Your task to perform on an android device: uninstall "Google Play Games" Image 0: 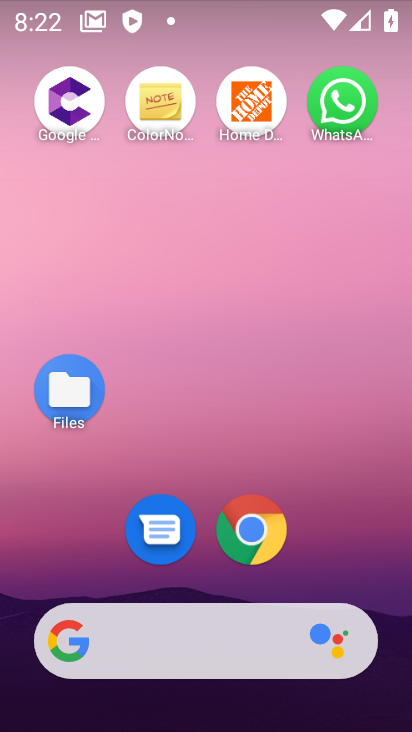
Step 0: drag from (303, 571) to (291, 0)
Your task to perform on an android device: uninstall "Google Play Games" Image 1: 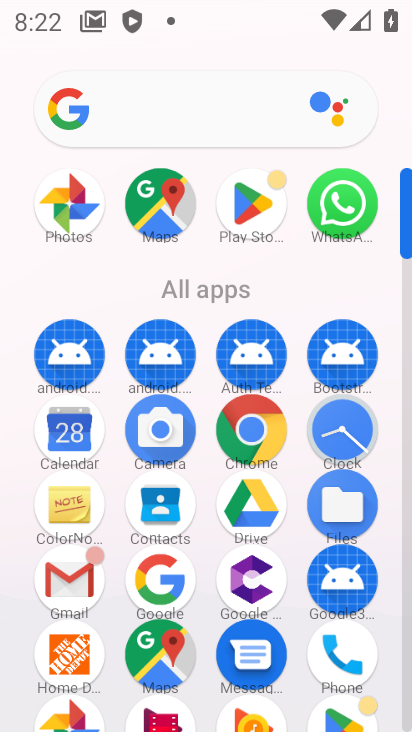
Step 1: click (250, 204)
Your task to perform on an android device: uninstall "Google Play Games" Image 2: 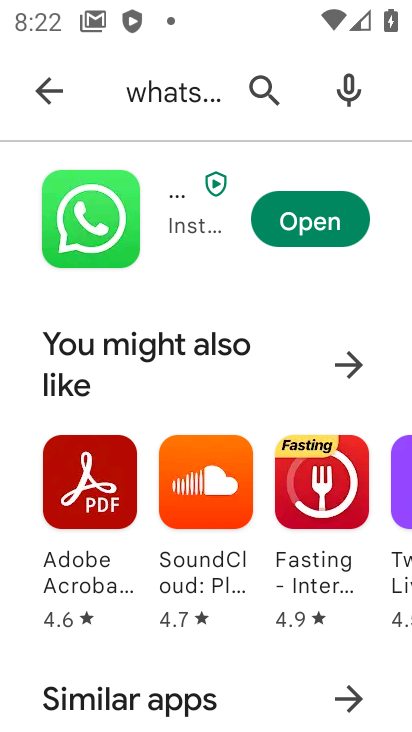
Step 2: click (257, 70)
Your task to perform on an android device: uninstall "Google Play Games" Image 3: 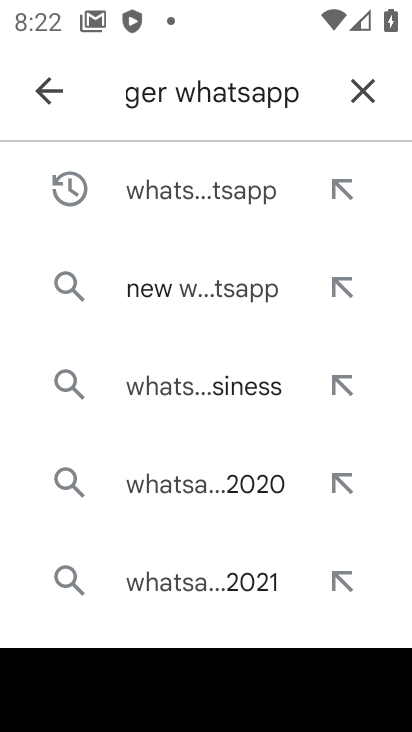
Step 3: click (351, 97)
Your task to perform on an android device: uninstall "Google Play Games" Image 4: 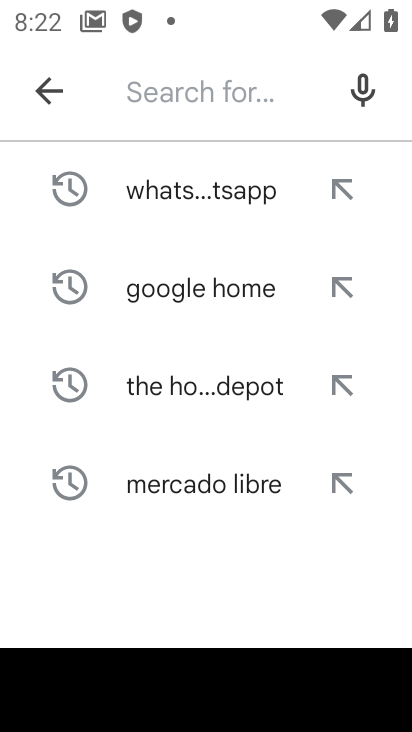
Step 4: type "Google Play Games"
Your task to perform on an android device: uninstall "Google Play Games" Image 5: 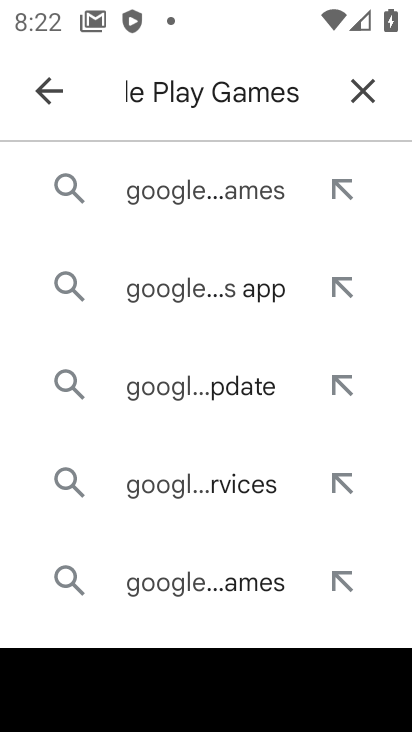
Step 5: click (187, 587)
Your task to perform on an android device: uninstall "Google Play Games" Image 6: 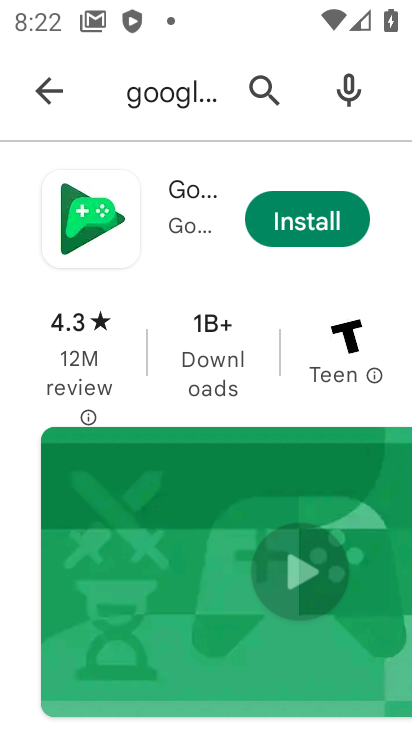
Step 6: task complete